Your task to perform on an android device: Go to privacy settings Image 0: 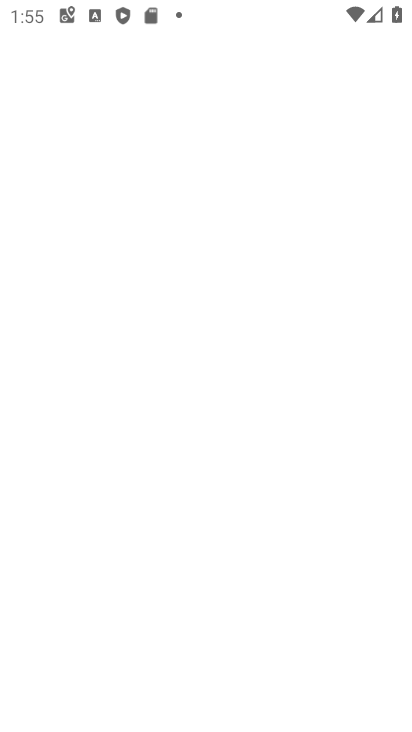
Step 0: drag from (202, 518) to (196, 233)
Your task to perform on an android device: Go to privacy settings Image 1: 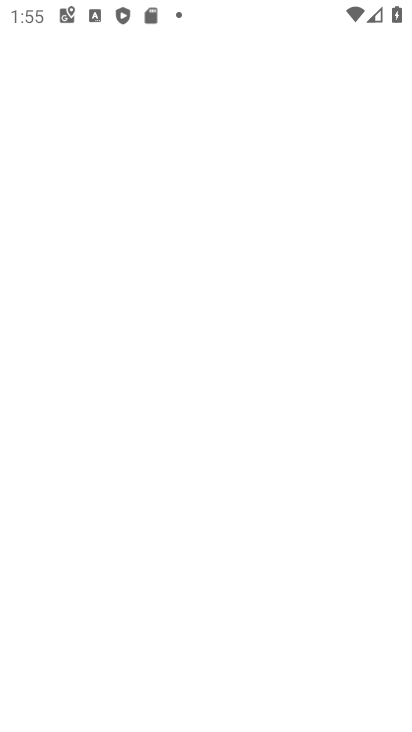
Step 1: press home button
Your task to perform on an android device: Go to privacy settings Image 2: 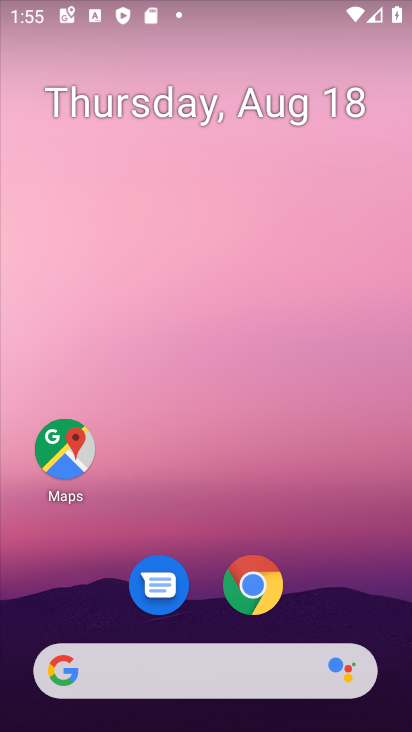
Step 2: drag from (309, 528) to (259, 0)
Your task to perform on an android device: Go to privacy settings Image 3: 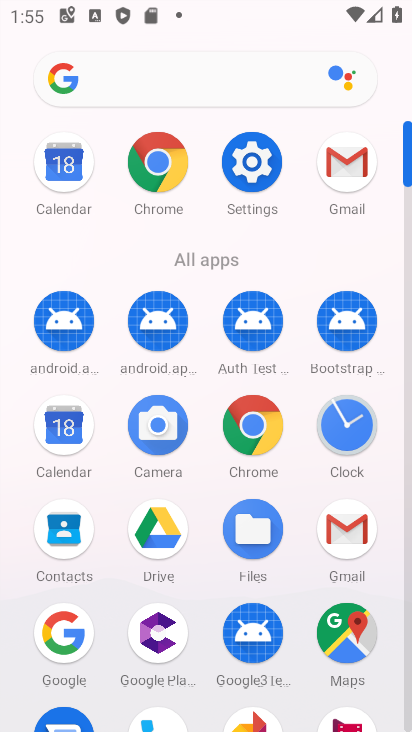
Step 3: click (249, 160)
Your task to perform on an android device: Go to privacy settings Image 4: 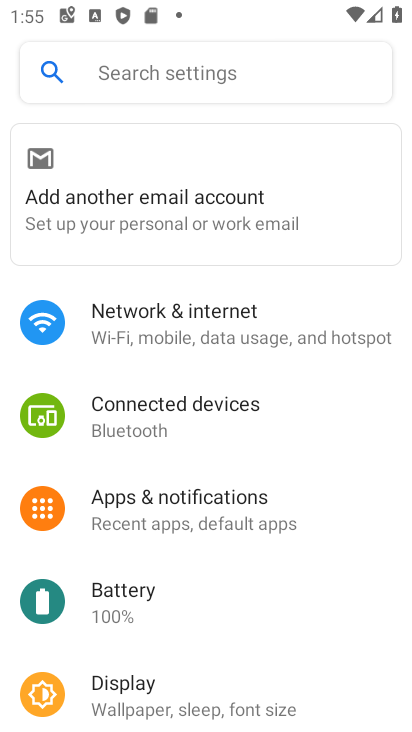
Step 4: drag from (244, 541) to (253, 1)
Your task to perform on an android device: Go to privacy settings Image 5: 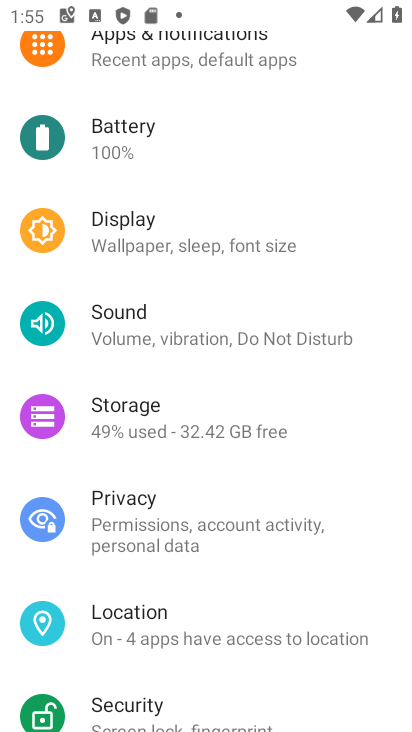
Step 5: click (199, 522)
Your task to perform on an android device: Go to privacy settings Image 6: 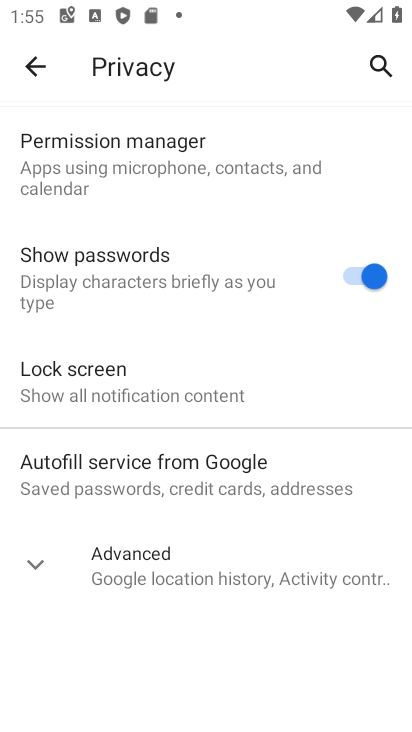
Step 6: task complete